Your task to perform on an android device: toggle translation in the chrome app Image 0: 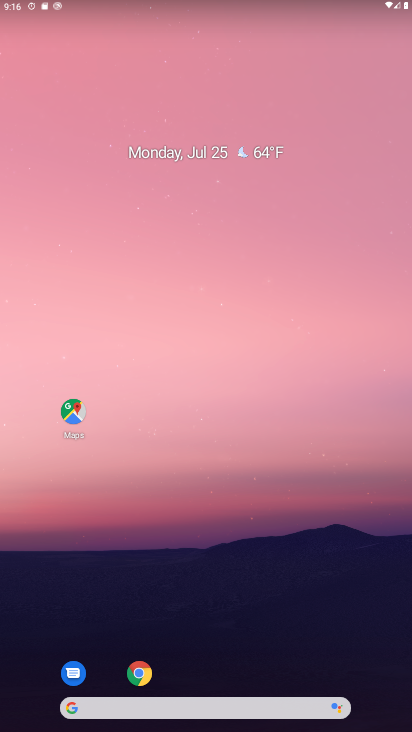
Step 0: press home button
Your task to perform on an android device: toggle translation in the chrome app Image 1: 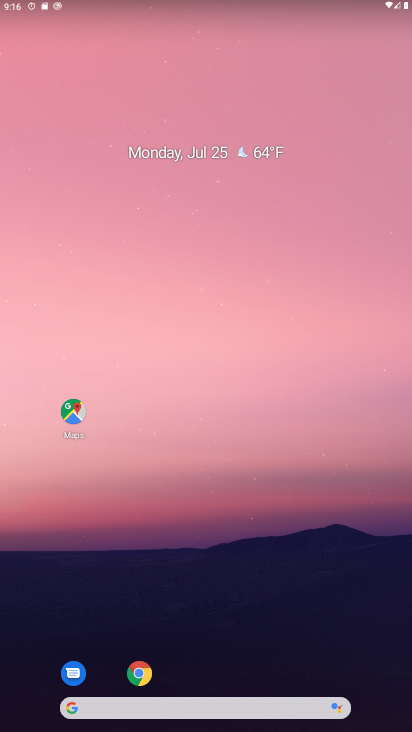
Step 1: click (142, 669)
Your task to perform on an android device: toggle translation in the chrome app Image 2: 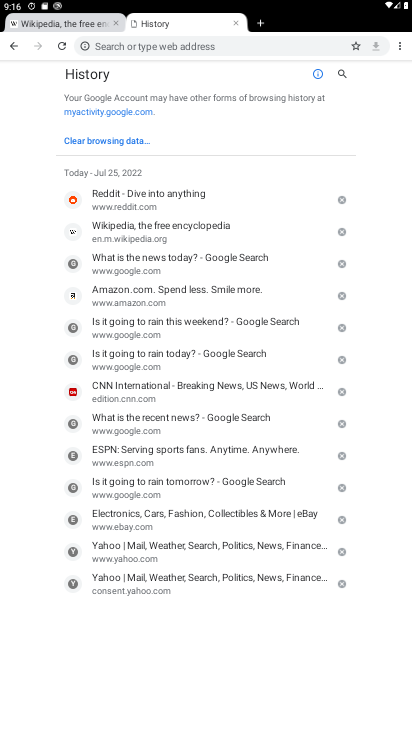
Step 2: click (263, 18)
Your task to perform on an android device: toggle translation in the chrome app Image 3: 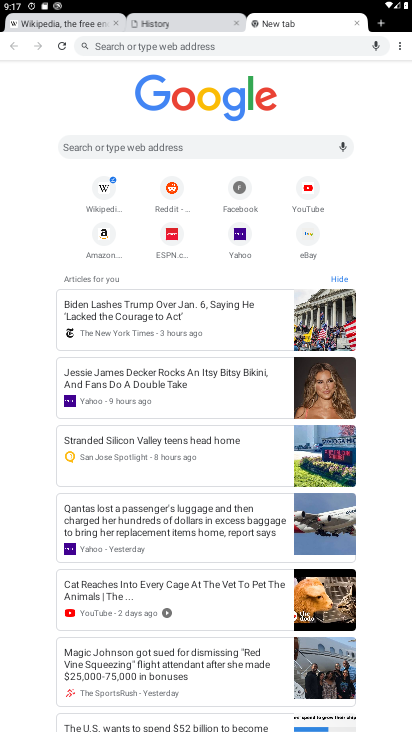
Step 3: click (397, 42)
Your task to perform on an android device: toggle translation in the chrome app Image 4: 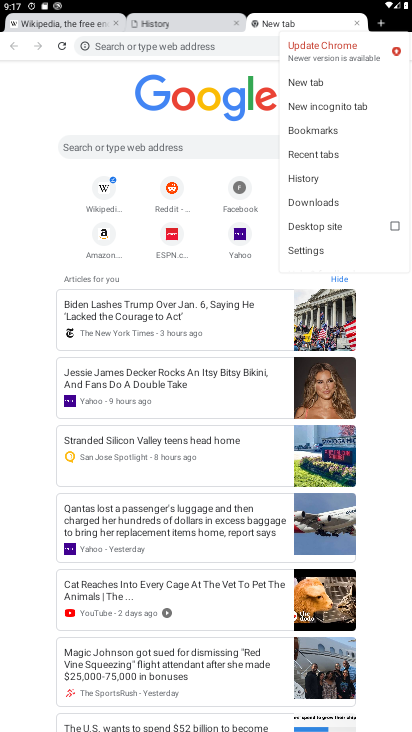
Step 4: click (331, 246)
Your task to perform on an android device: toggle translation in the chrome app Image 5: 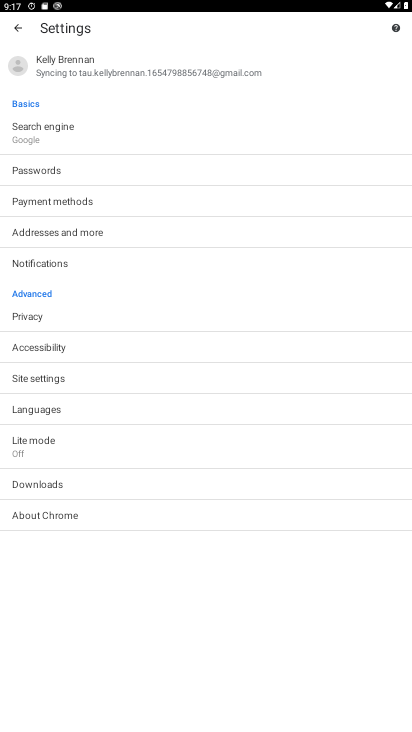
Step 5: click (72, 405)
Your task to perform on an android device: toggle translation in the chrome app Image 6: 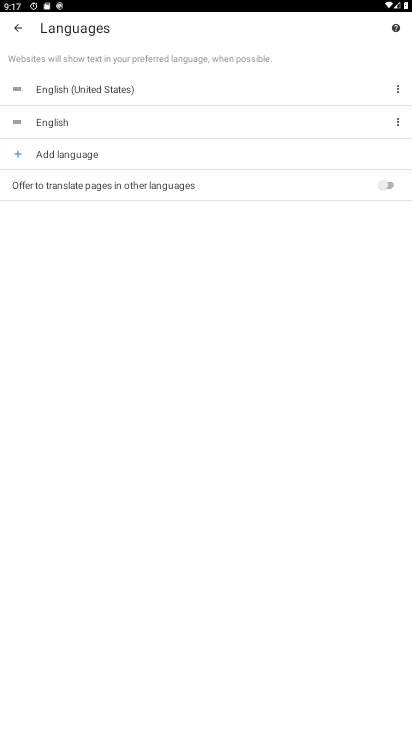
Step 6: click (392, 182)
Your task to perform on an android device: toggle translation in the chrome app Image 7: 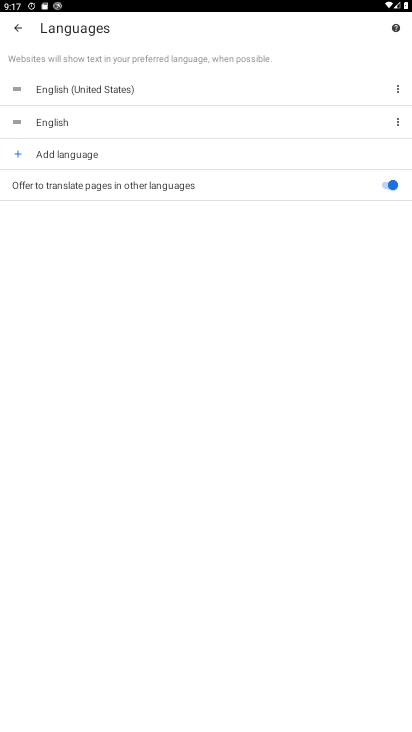
Step 7: task complete